Your task to perform on an android device: Open Maps and search for coffee Image 0: 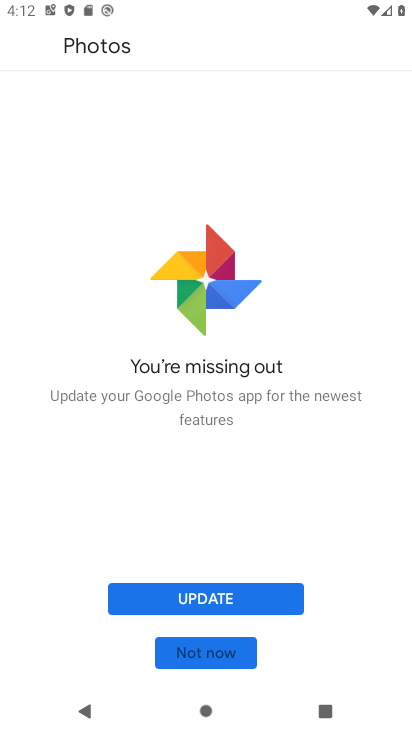
Step 0: click (252, 644)
Your task to perform on an android device: Open Maps and search for coffee Image 1: 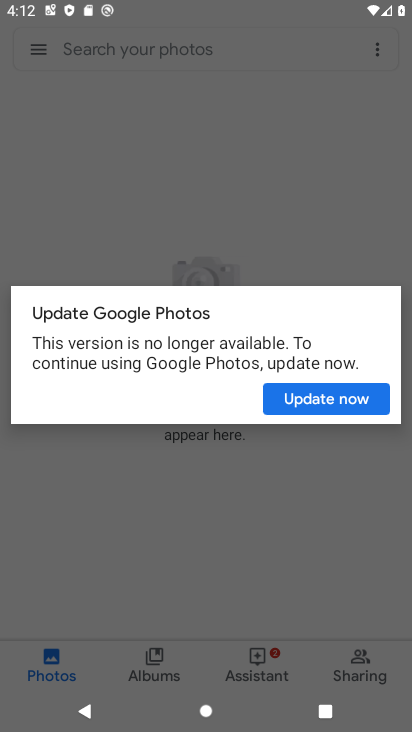
Step 1: click (318, 400)
Your task to perform on an android device: Open Maps and search for coffee Image 2: 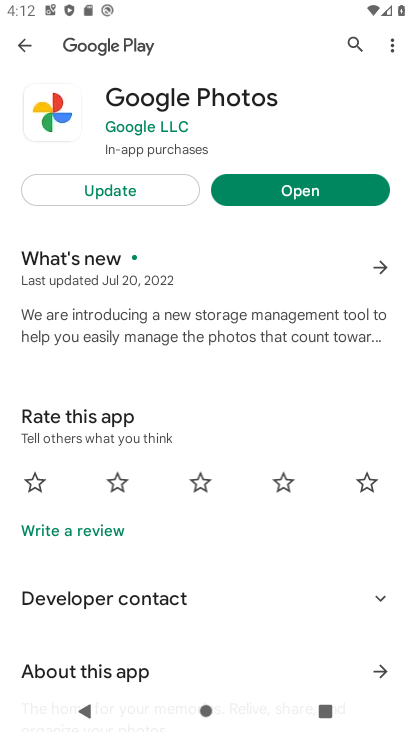
Step 2: click (288, 186)
Your task to perform on an android device: Open Maps and search for coffee Image 3: 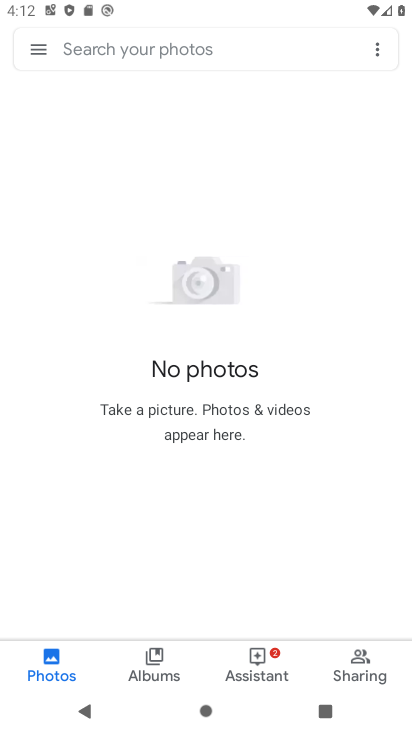
Step 3: click (157, 45)
Your task to perform on an android device: Open Maps and search for coffee Image 4: 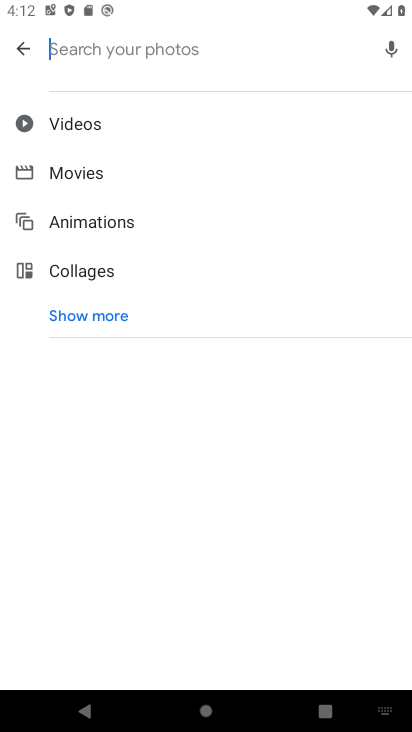
Step 4: type "coffee"
Your task to perform on an android device: Open Maps and search for coffee Image 5: 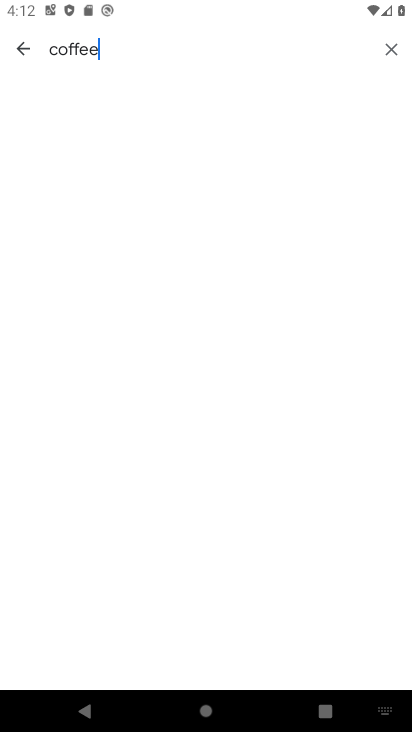
Step 5: type ""
Your task to perform on an android device: Open Maps and search for coffee Image 6: 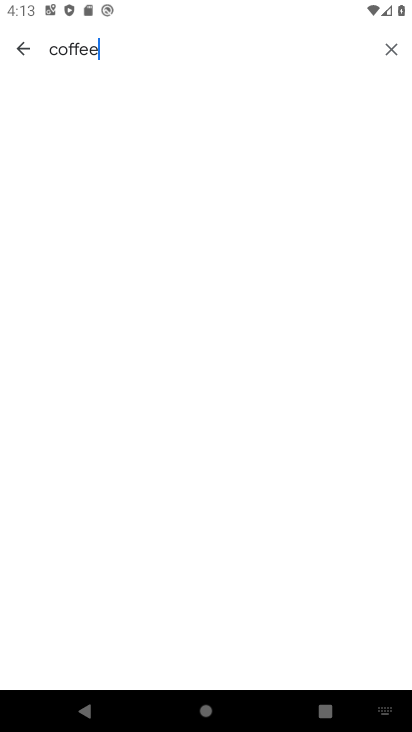
Step 6: task complete